Your task to perform on an android device: Go to Android settings Image 0: 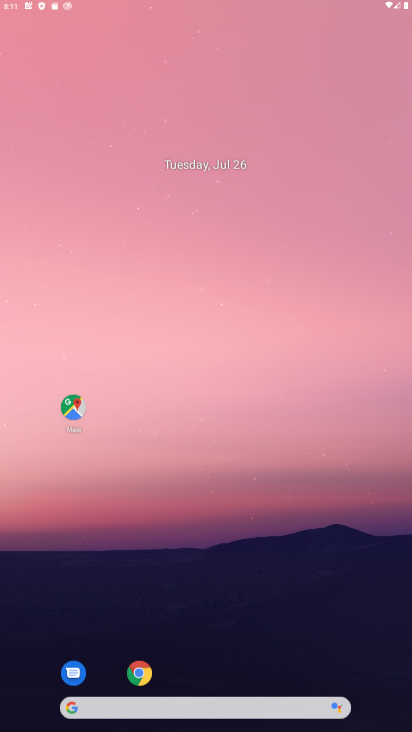
Step 0: press home button
Your task to perform on an android device: Go to Android settings Image 1: 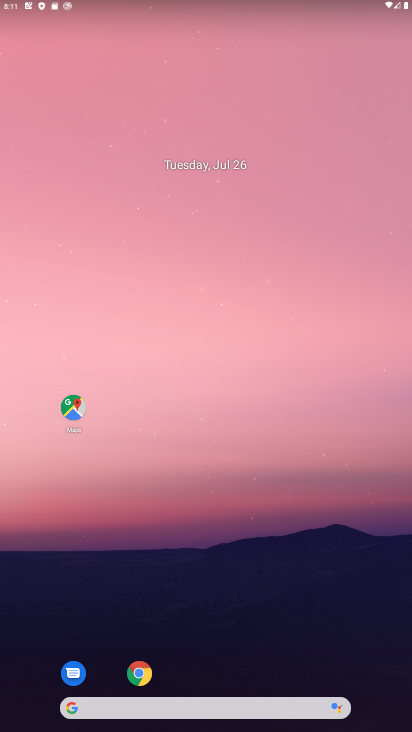
Step 1: drag from (309, 647) to (185, 152)
Your task to perform on an android device: Go to Android settings Image 2: 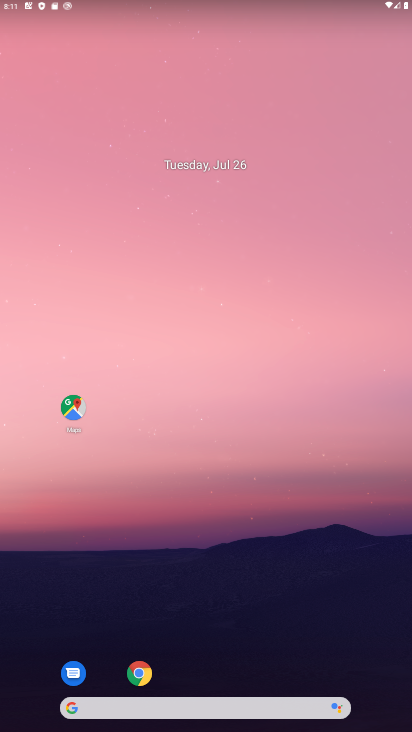
Step 2: drag from (322, 586) to (398, 7)
Your task to perform on an android device: Go to Android settings Image 3: 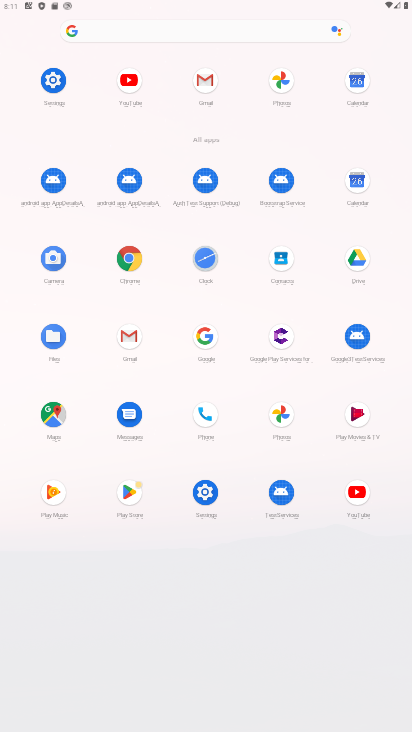
Step 3: click (205, 511)
Your task to perform on an android device: Go to Android settings Image 4: 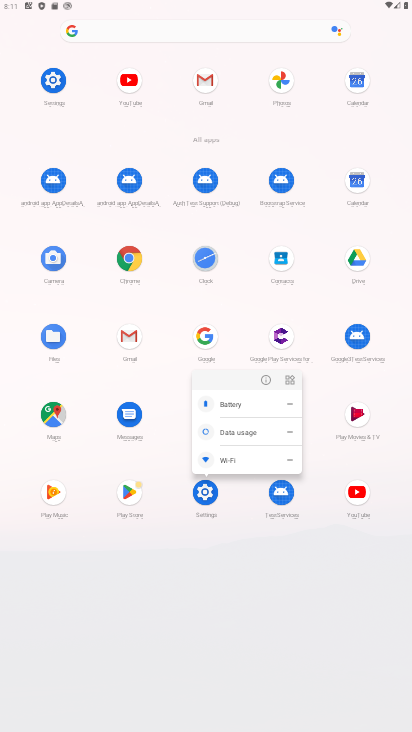
Step 4: click (205, 511)
Your task to perform on an android device: Go to Android settings Image 5: 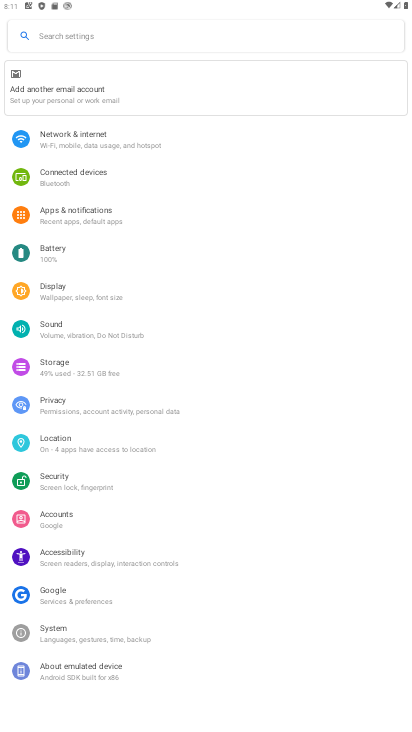
Step 5: drag from (91, 610) to (249, 234)
Your task to perform on an android device: Go to Android settings Image 6: 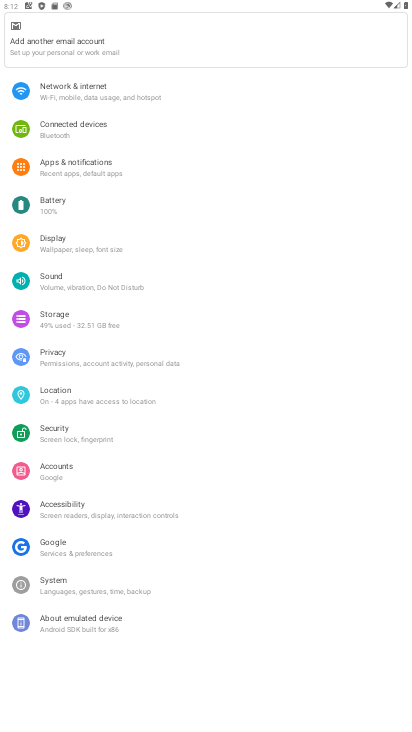
Step 6: click (63, 629)
Your task to perform on an android device: Go to Android settings Image 7: 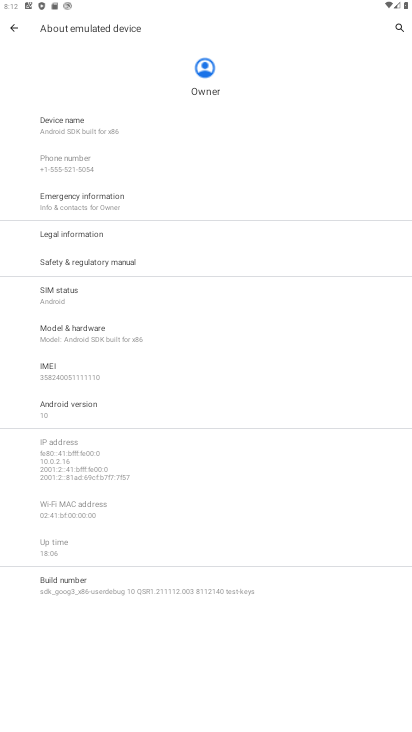
Step 7: click (83, 410)
Your task to perform on an android device: Go to Android settings Image 8: 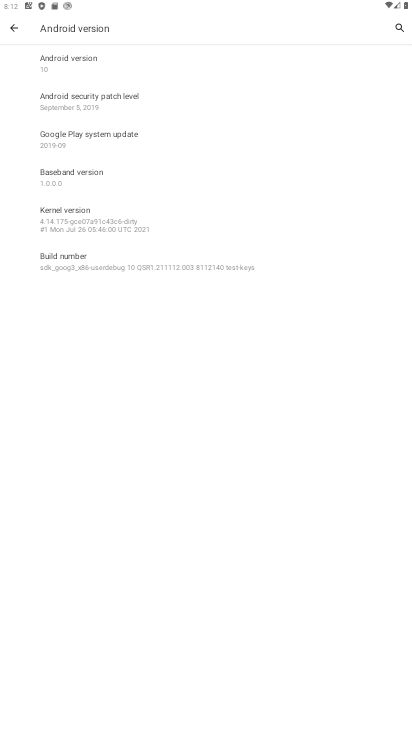
Step 8: task complete